Your task to perform on an android device: Open CNN.com Image 0: 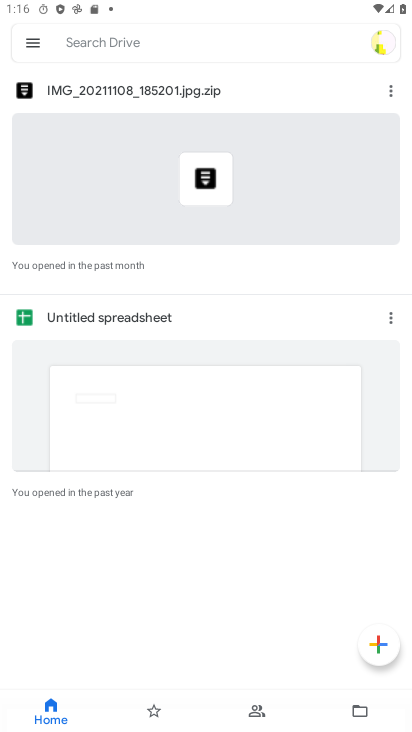
Step 0: press home button
Your task to perform on an android device: Open CNN.com Image 1: 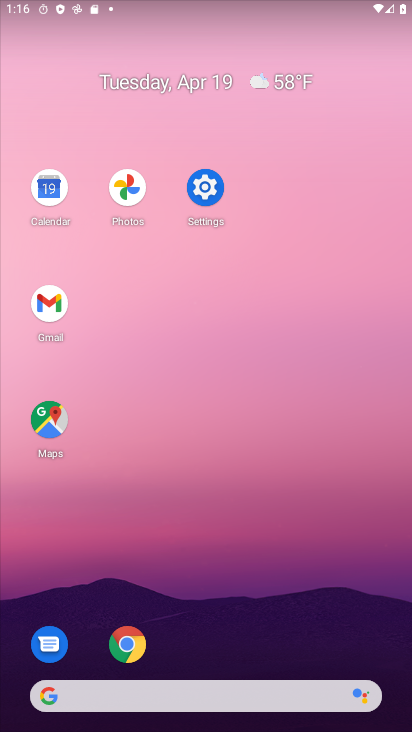
Step 1: click (131, 648)
Your task to perform on an android device: Open CNN.com Image 2: 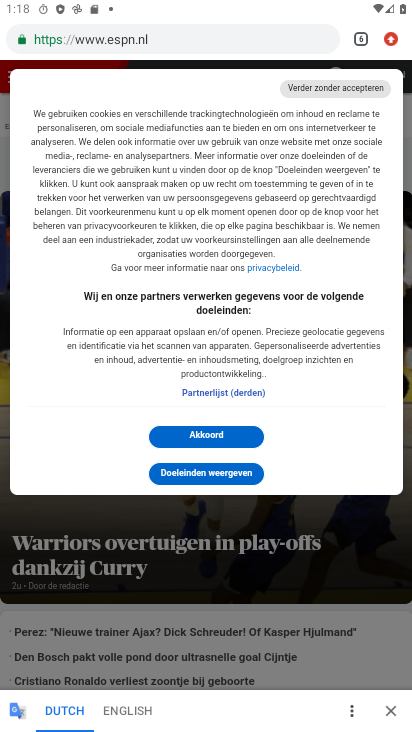
Step 2: press home button
Your task to perform on an android device: Open CNN.com Image 3: 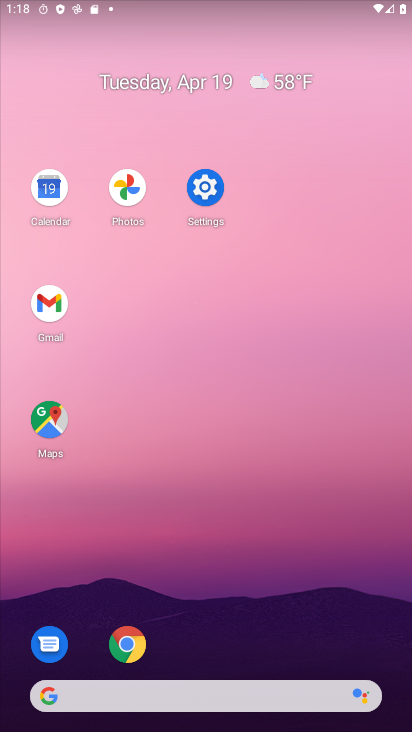
Step 3: click (135, 635)
Your task to perform on an android device: Open CNN.com Image 4: 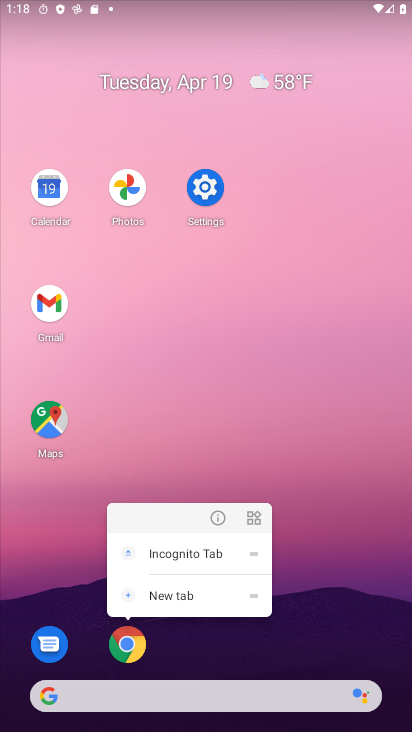
Step 4: click (130, 644)
Your task to perform on an android device: Open CNN.com Image 5: 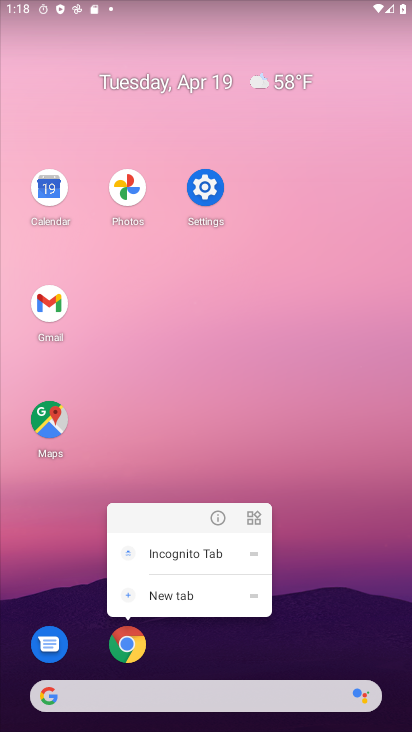
Step 5: click (130, 646)
Your task to perform on an android device: Open CNN.com Image 6: 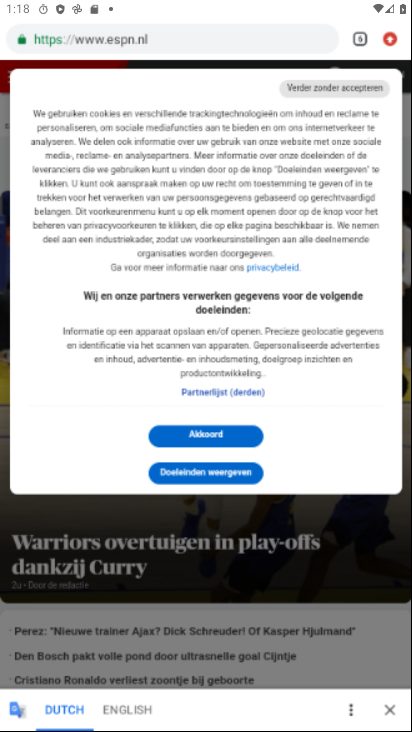
Step 6: click (116, 652)
Your task to perform on an android device: Open CNN.com Image 7: 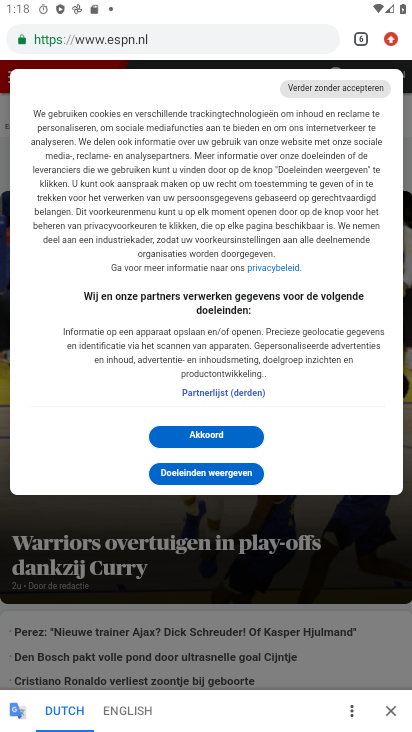
Step 7: click (365, 38)
Your task to perform on an android device: Open CNN.com Image 8: 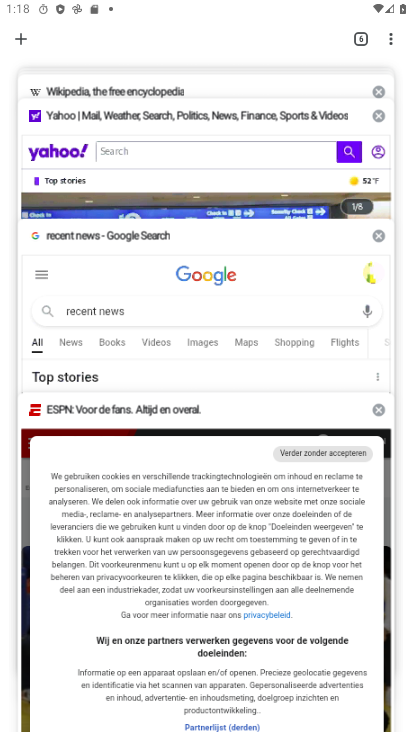
Step 8: click (21, 32)
Your task to perform on an android device: Open CNN.com Image 9: 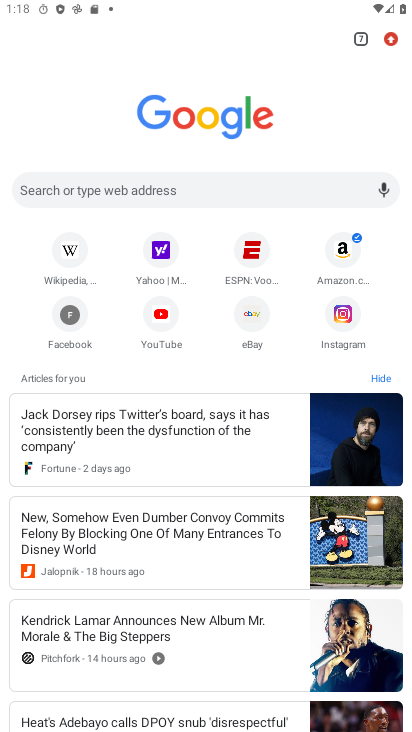
Step 9: click (141, 185)
Your task to perform on an android device: Open CNN.com Image 10: 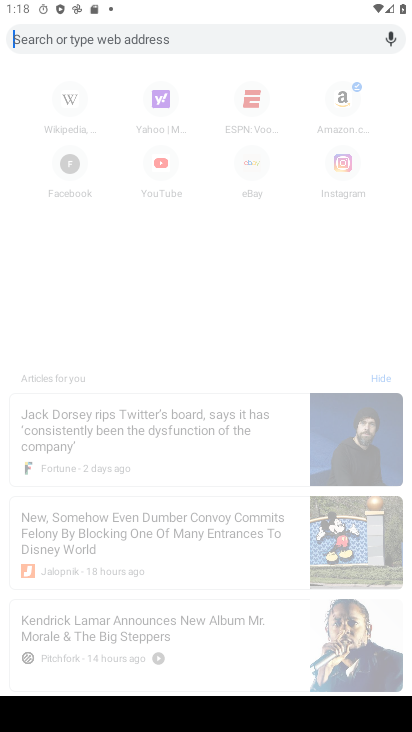
Step 10: type "cnn"
Your task to perform on an android device: Open CNN.com Image 11: 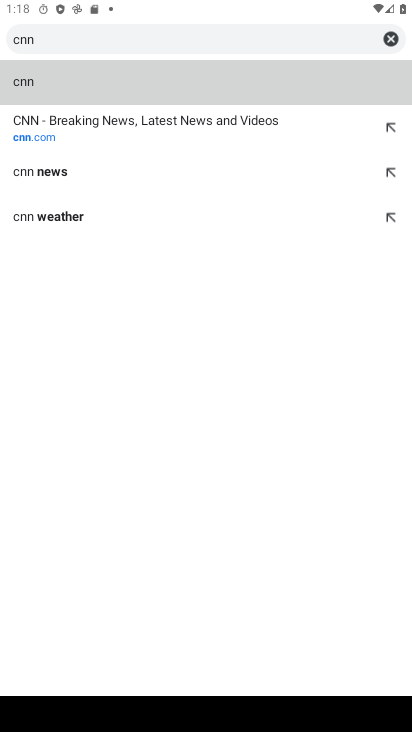
Step 11: click (69, 136)
Your task to perform on an android device: Open CNN.com Image 12: 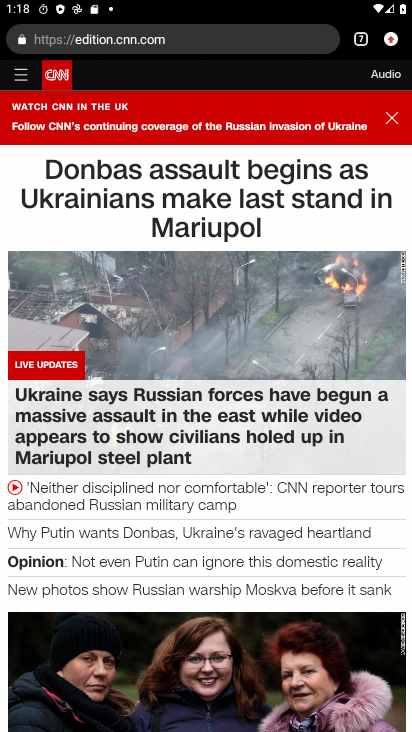
Step 12: task complete